Your task to perform on an android device: Open Google Maps Image 0: 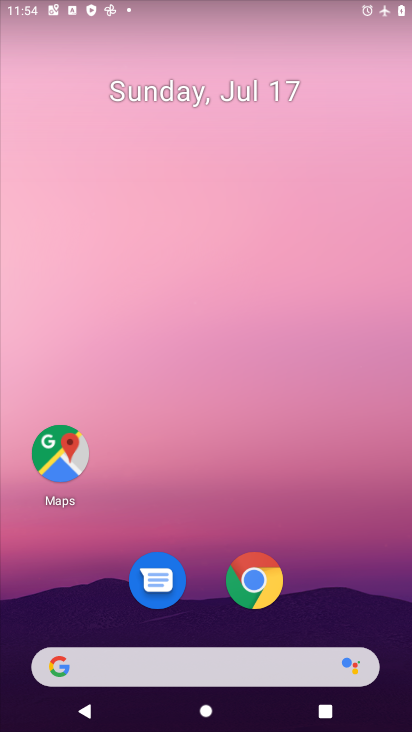
Step 0: drag from (220, 655) to (289, 23)
Your task to perform on an android device: Open Google Maps Image 1: 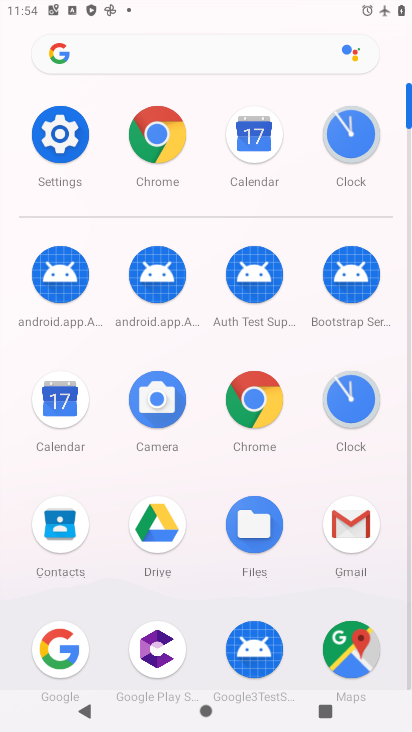
Step 1: drag from (289, 506) to (313, 240)
Your task to perform on an android device: Open Google Maps Image 2: 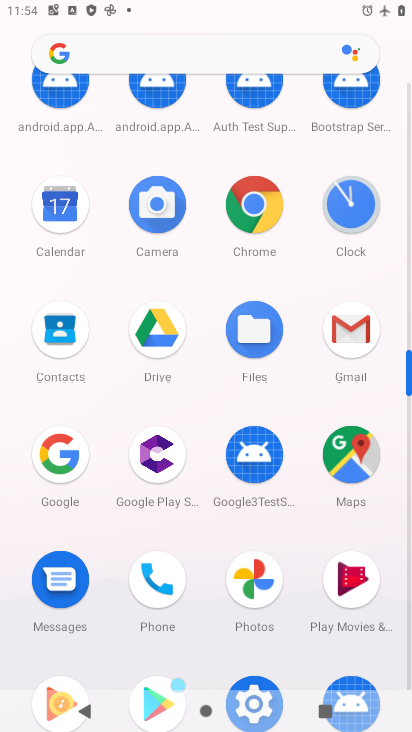
Step 2: click (357, 459)
Your task to perform on an android device: Open Google Maps Image 3: 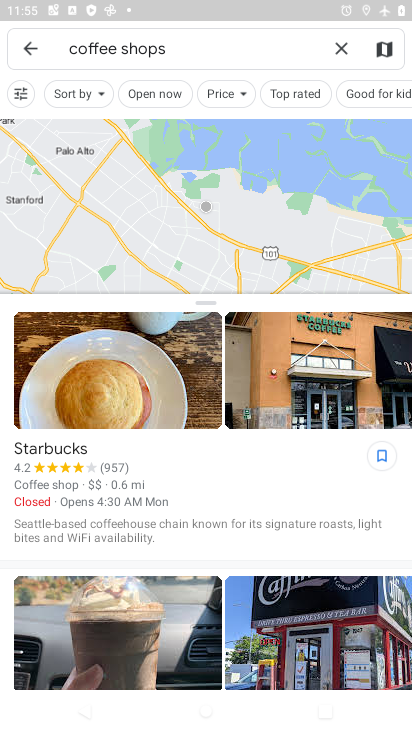
Step 3: task complete